Your task to perform on an android device: Open the Play Movies app and select the watchlist tab. Image 0: 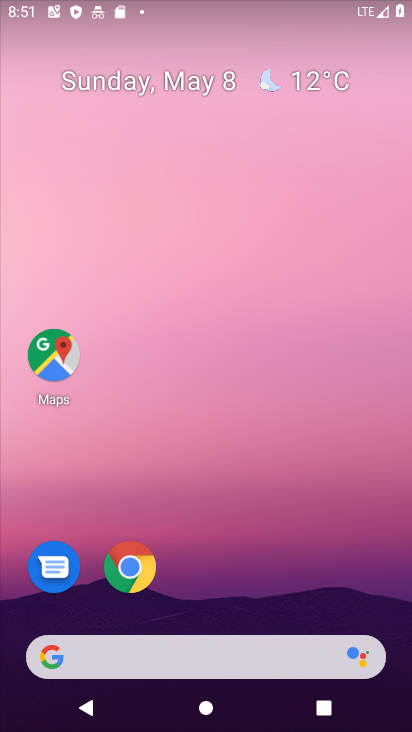
Step 0: drag from (189, 650) to (105, 28)
Your task to perform on an android device: Open the Play Movies app and select the watchlist tab. Image 1: 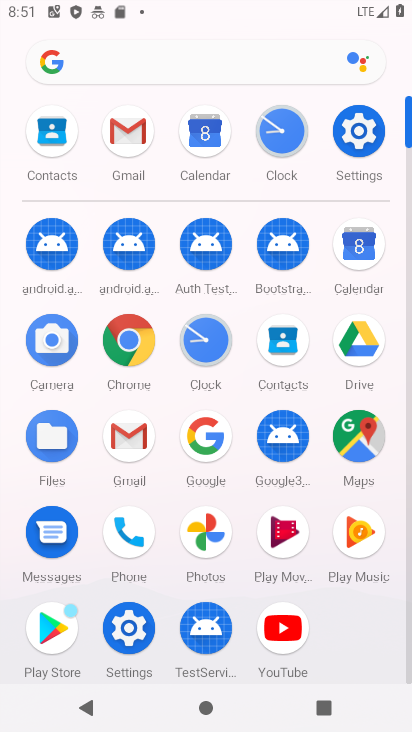
Step 1: click (271, 528)
Your task to perform on an android device: Open the Play Movies app and select the watchlist tab. Image 2: 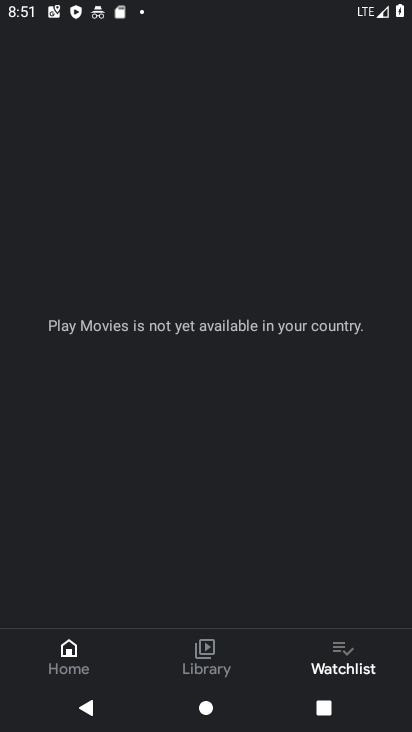
Step 2: click (321, 660)
Your task to perform on an android device: Open the Play Movies app and select the watchlist tab. Image 3: 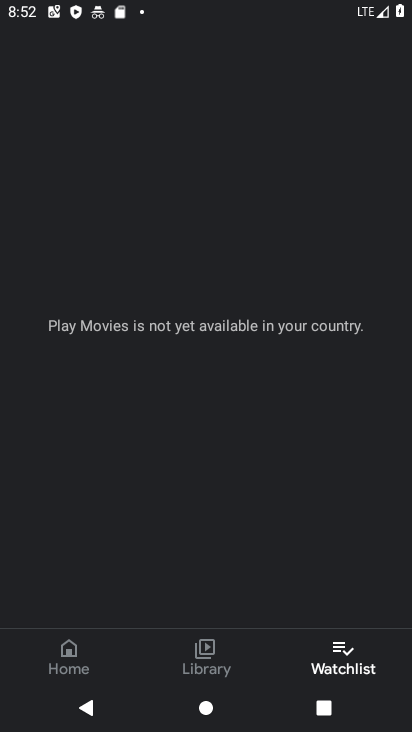
Step 3: task complete